Your task to perform on an android device: toggle sleep mode Image 0: 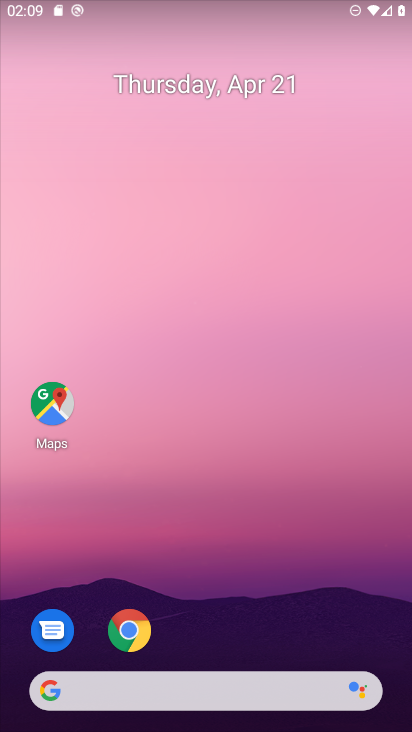
Step 0: drag from (269, 622) to (315, 24)
Your task to perform on an android device: toggle sleep mode Image 1: 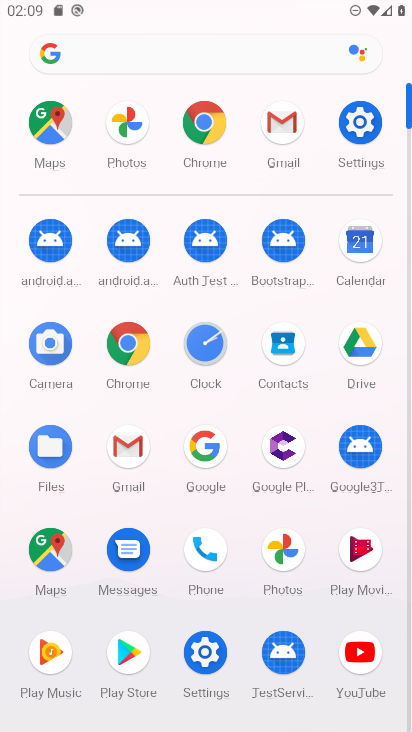
Step 1: click (205, 658)
Your task to perform on an android device: toggle sleep mode Image 2: 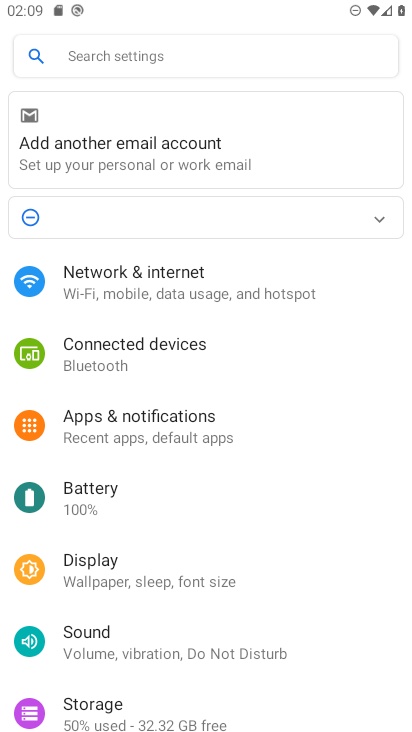
Step 2: click (214, 566)
Your task to perform on an android device: toggle sleep mode Image 3: 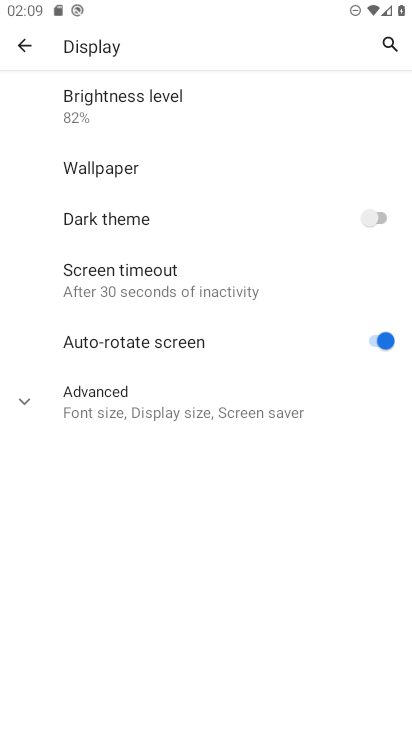
Step 3: click (220, 270)
Your task to perform on an android device: toggle sleep mode Image 4: 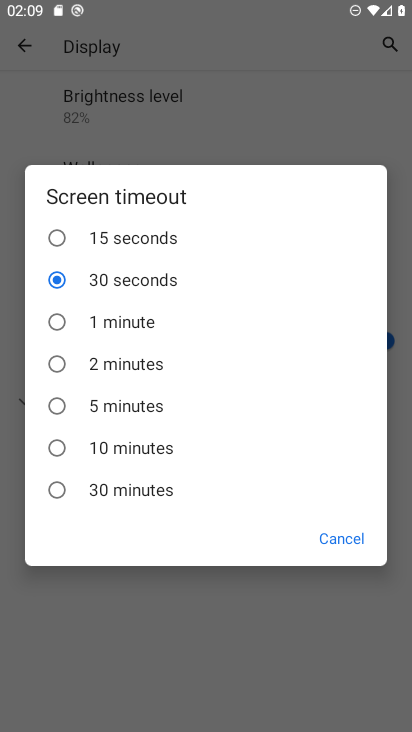
Step 4: click (219, 241)
Your task to perform on an android device: toggle sleep mode Image 5: 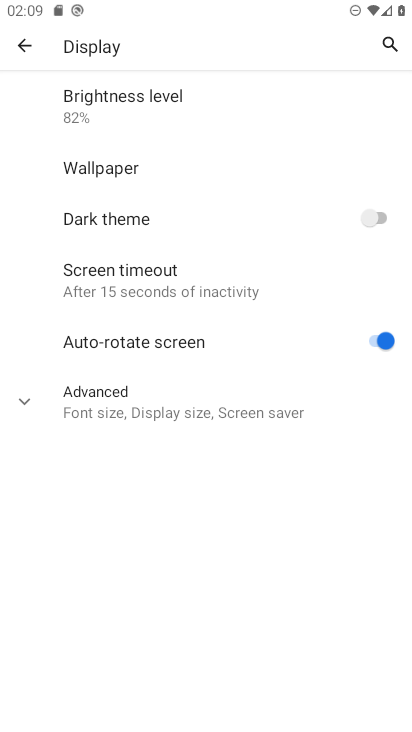
Step 5: task complete